Your task to perform on an android device: Search for pizza restaurants on Maps Image 0: 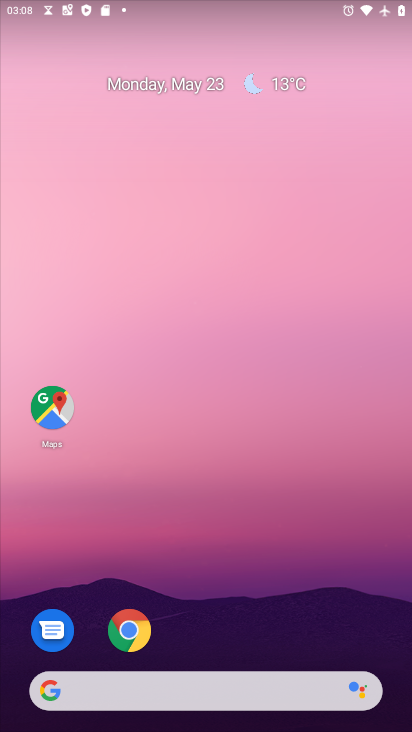
Step 0: click (25, 381)
Your task to perform on an android device: Search for pizza restaurants on Maps Image 1: 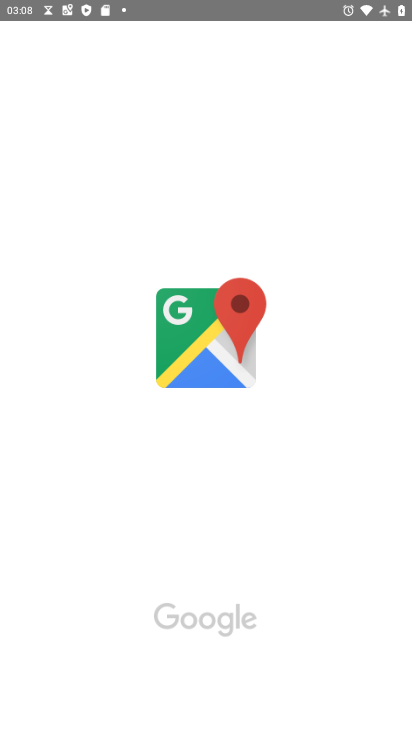
Step 1: click (69, 427)
Your task to perform on an android device: Search for pizza restaurants on Maps Image 2: 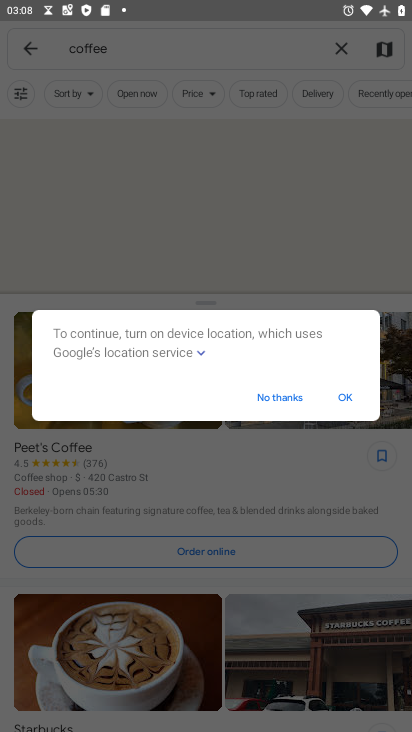
Step 2: click (282, 393)
Your task to perform on an android device: Search for pizza restaurants on Maps Image 3: 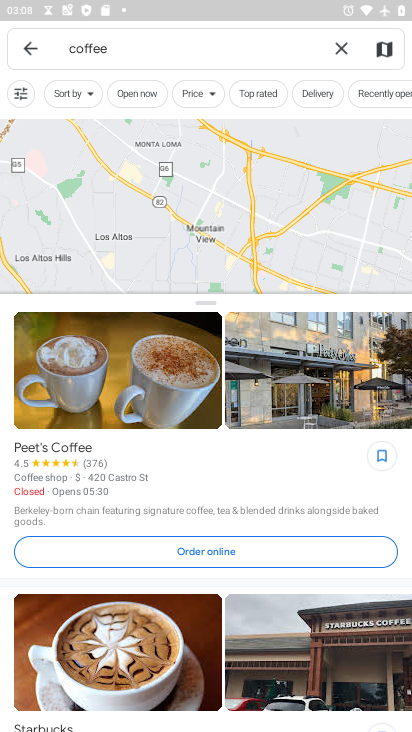
Step 3: click (331, 51)
Your task to perform on an android device: Search for pizza restaurants on Maps Image 4: 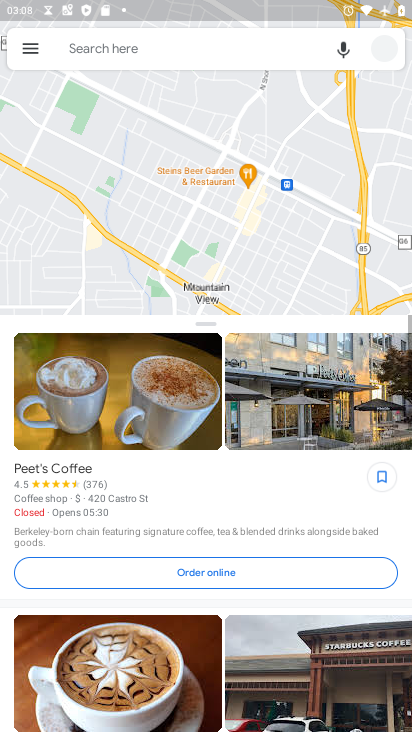
Step 4: click (160, 46)
Your task to perform on an android device: Search for pizza restaurants on Maps Image 5: 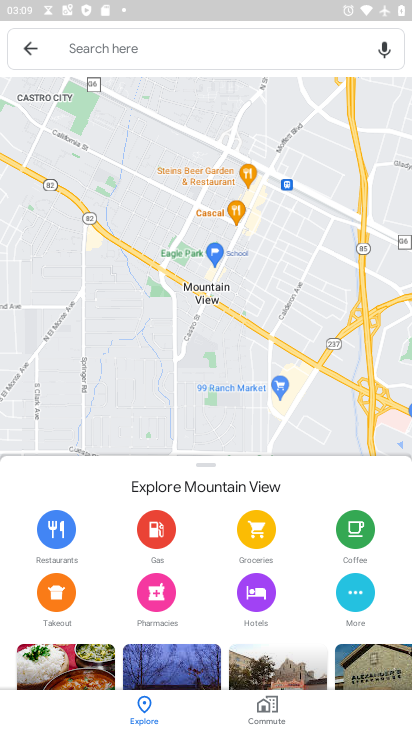
Step 5: click (191, 52)
Your task to perform on an android device: Search for pizza restaurants on Maps Image 6: 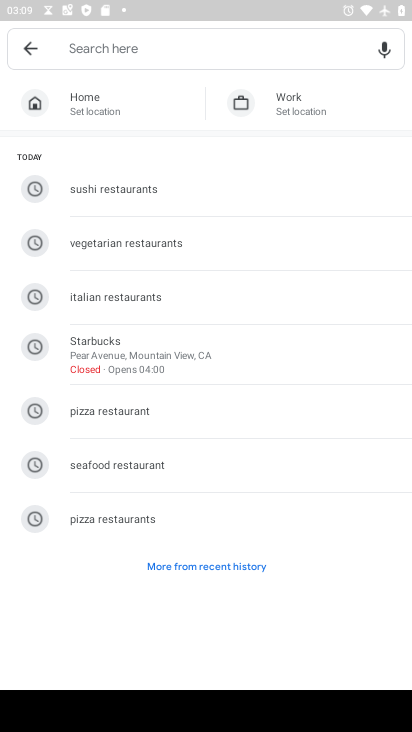
Step 6: click (162, 414)
Your task to perform on an android device: Search for pizza restaurants on Maps Image 7: 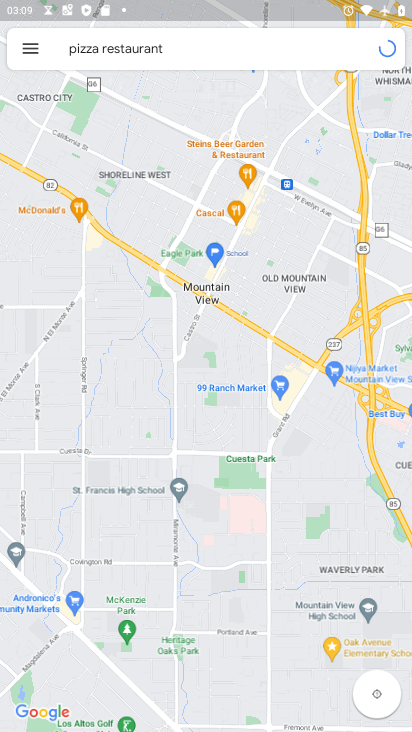
Step 7: task complete